Your task to perform on an android device: toggle wifi Image 0: 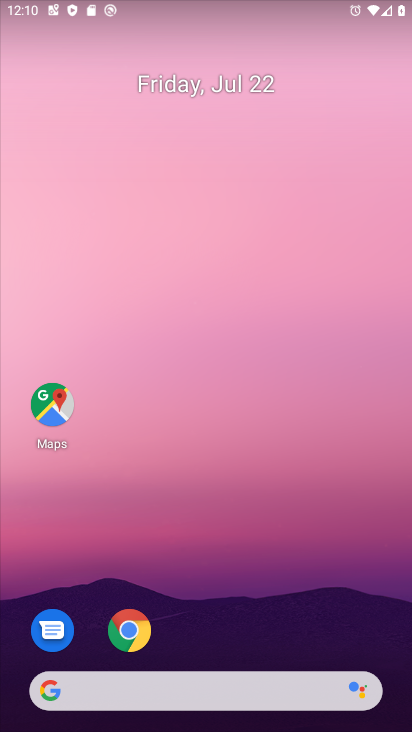
Step 0: drag from (202, 638) to (150, 206)
Your task to perform on an android device: toggle wifi Image 1: 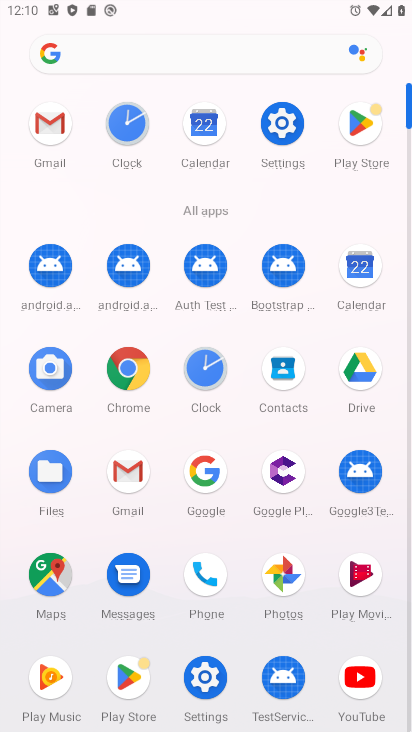
Step 1: click (283, 118)
Your task to perform on an android device: toggle wifi Image 2: 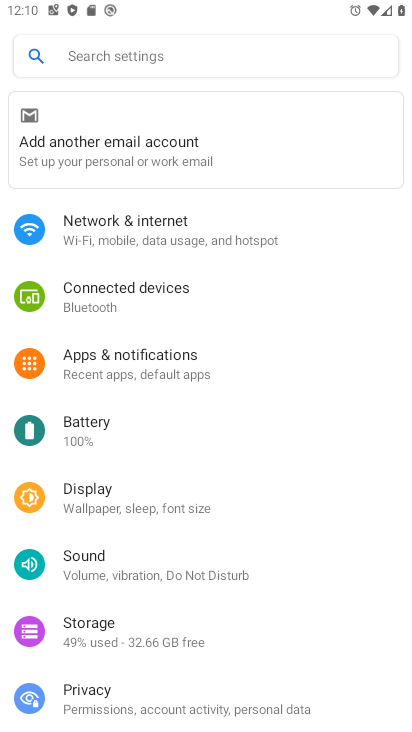
Step 2: click (198, 227)
Your task to perform on an android device: toggle wifi Image 3: 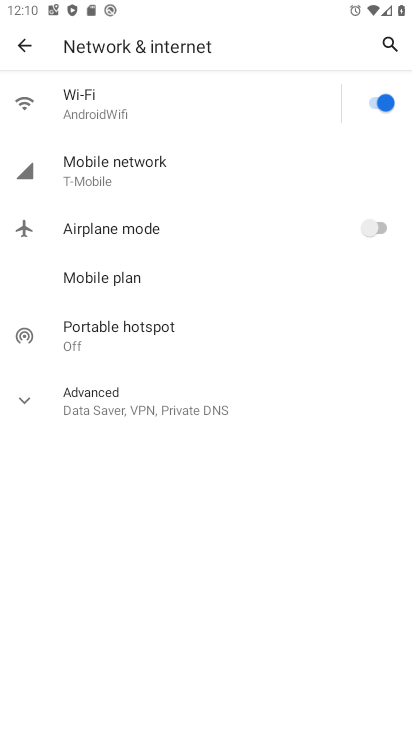
Step 3: click (387, 102)
Your task to perform on an android device: toggle wifi Image 4: 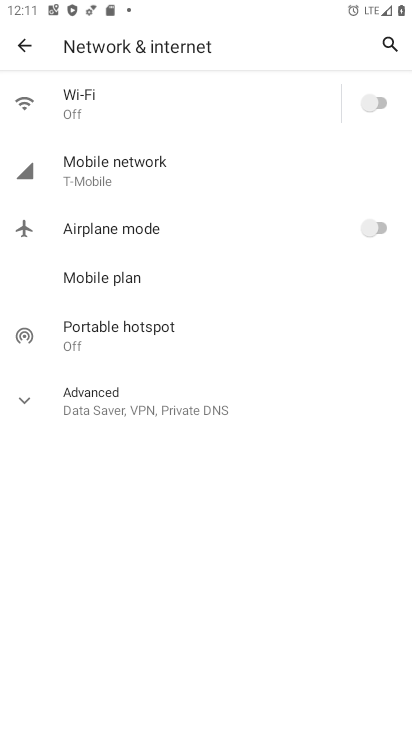
Step 4: task complete